Your task to perform on an android device: remove spam from my inbox in the gmail app Image 0: 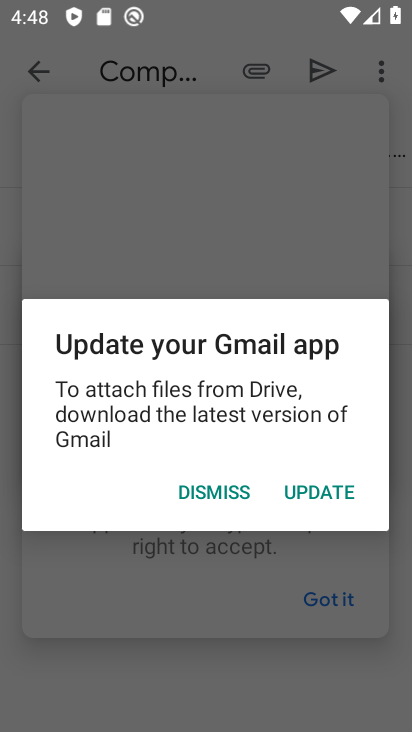
Step 0: press home button
Your task to perform on an android device: remove spam from my inbox in the gmail app Image 1: 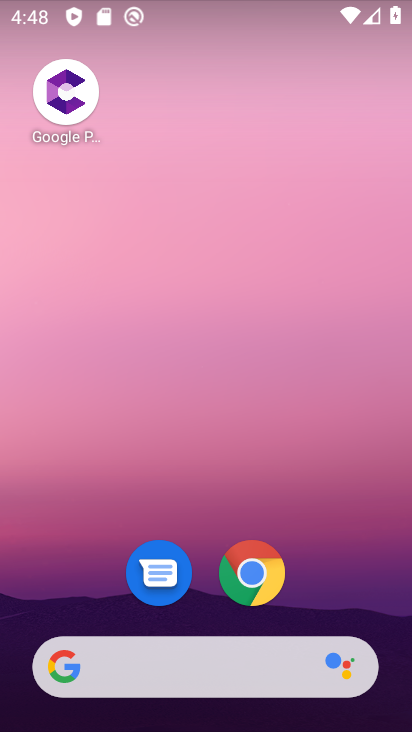
Step 1: drag from (324, 588) to (181, 149)
Your task to perform on an android device: remove spam from my inbox in the gmail app Image 2: 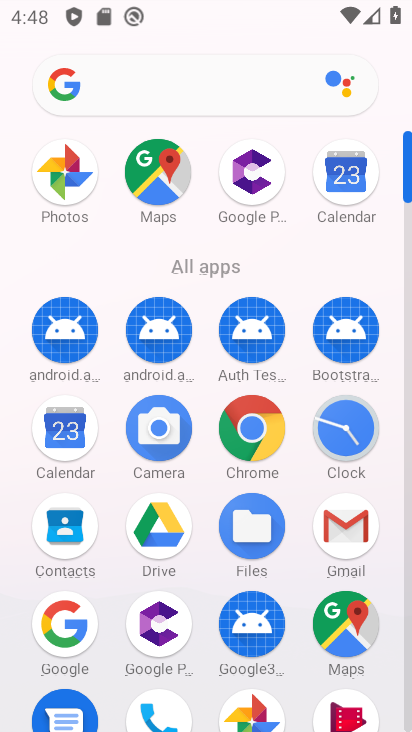
Step 2: click (345, 520)
Your task to perform on an android device: remove spam from my inbox in the gmail app Image 3: 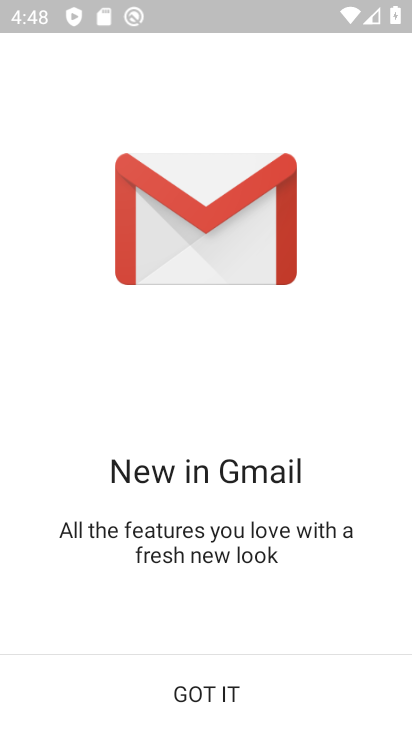
Step 3: click (202, 684)
Your task to perform on an android device: remove spam from my inbox in the gmail app Image 4: 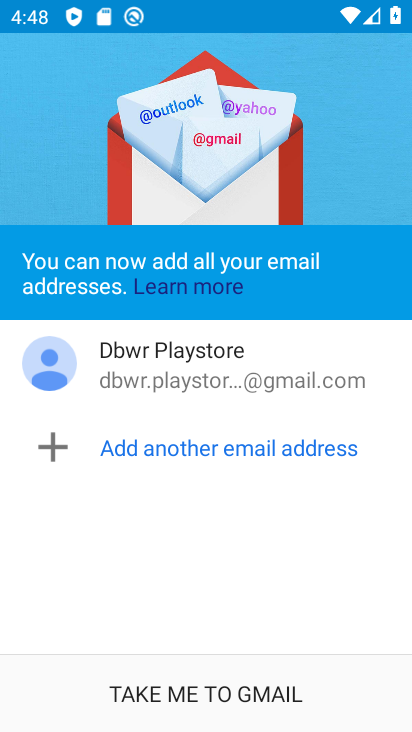
Step 4: click (202, 684)
Your task to perform on an android device: remove spam from my inbox in the gmail app Image 5: 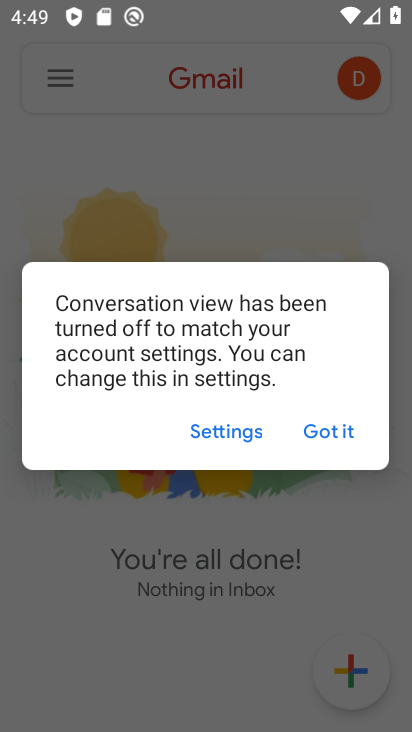
Step 5: click (327, 433)
Your task to perform on an android device: remove spam from my inbox in the gmail app Image 6: 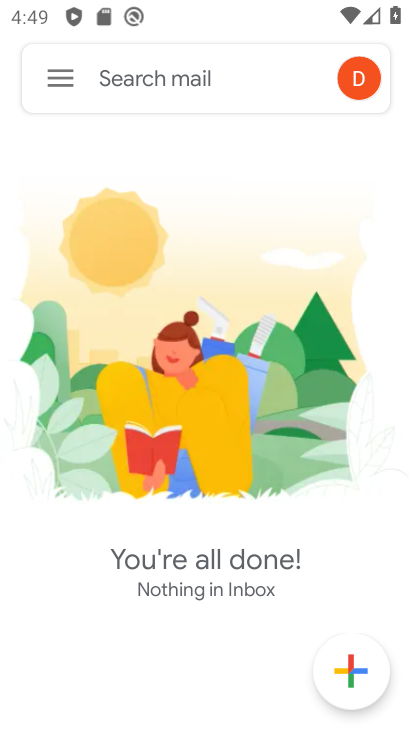
Step 6: click (58, 66)
Your task to perform on an android device: remove spam from my inbox in the gmail app Image 7: 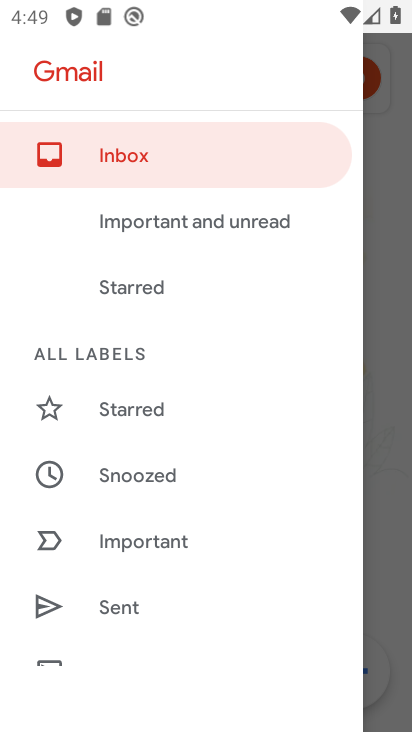
Step 7: drag from (160, 547) to (168, 412)
Your task to perform on an android device: remove spam from my inbox in the gmail app Image 8: 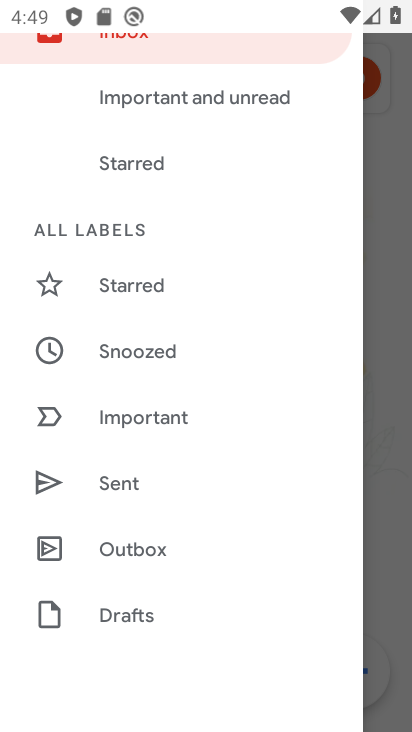
Step 8: drag from (151, 571) to (180, 480)
Your task to perform on an android device: remove spam from my inbox in the gmail app Image 9: 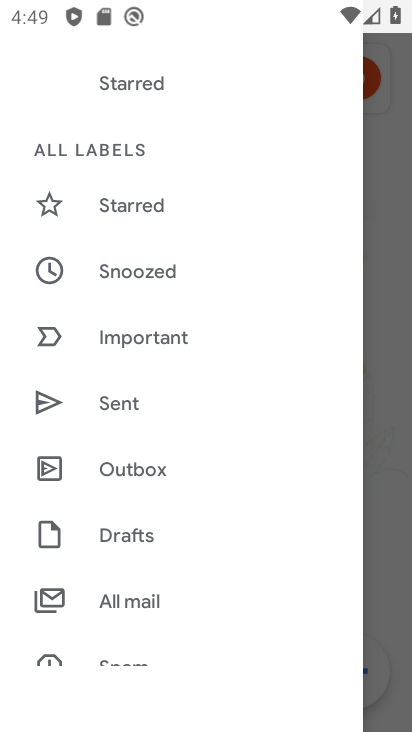
Step 9: drag from (122, 645) to (182, 566)
Your task to perform on an android device: remove spam from my inbox in the gmail app Image 10: 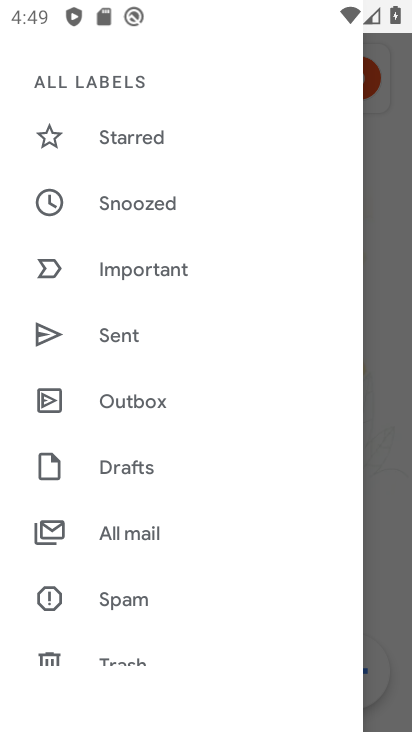
Step 10: click (135, 601)
Your task to perform on an android device: remove spam from my inbox in the gmail app Image 11: 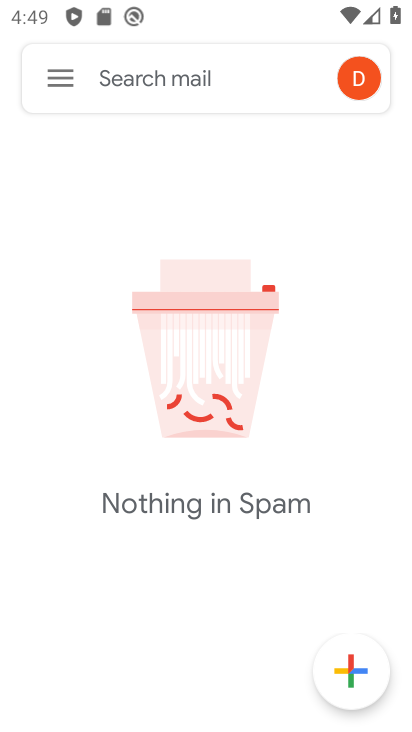
Step 11: task complete